Your task to perform on an android device: Open the phone app and click the voicemail tab. Image 0: 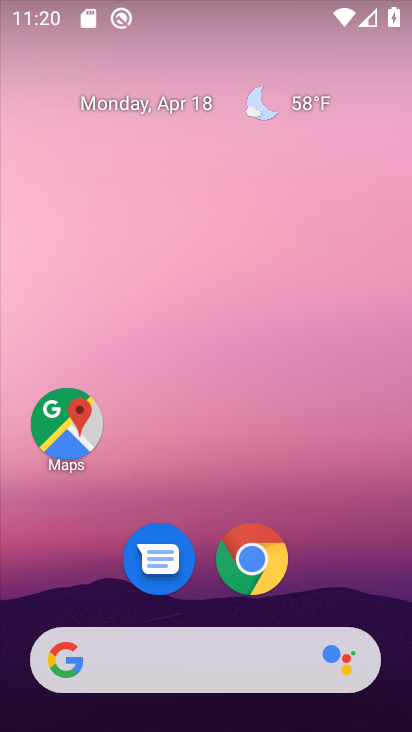
Step 0: drag from (352, 540) to (141, 104)
Your task to perform on an android device: Open the phone app and click the voicemail tab. Image 1: 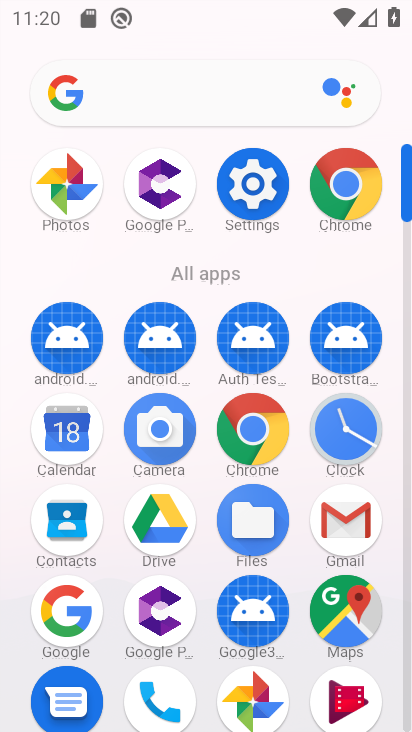
Step 1: click (159, 692)
Your task to perform on an android device: Open the phone app and click the voicemail tab. Image 2: 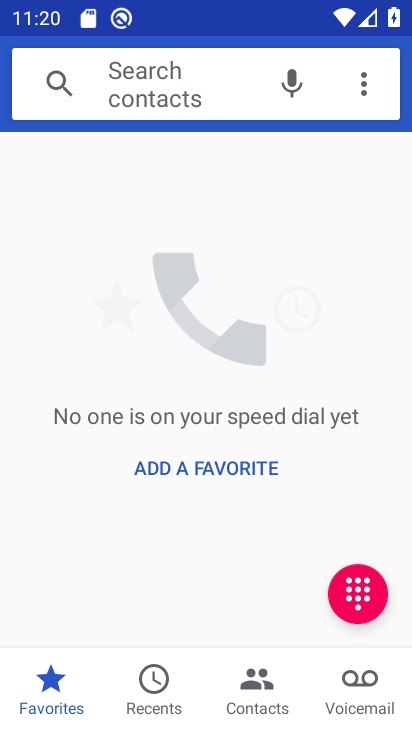
Step 2: click (373, 678)
Your task to perform on an android device: Open the phone app and click the voicemail tab. Image 3: 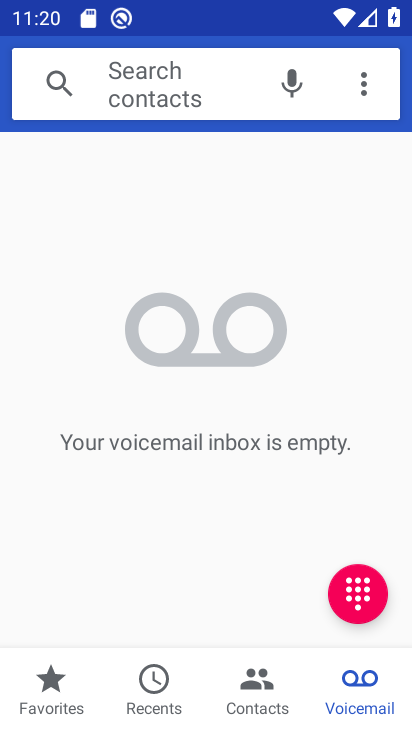
Step 3: task complete